Your task to perform on an android device: add a contact Image 0: 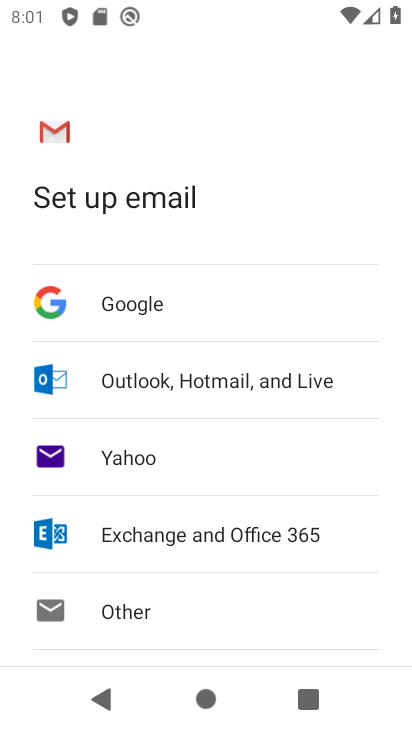
Step 0: press home button
Your task to perform on an android device: add a contact Image 1: 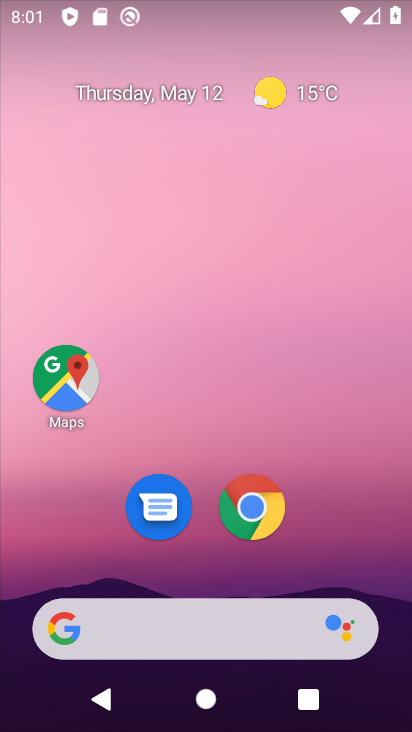
Step 1: drag from (232, 572) to (169, 52)
Your task to perform on an android device: add a contact Image 2: 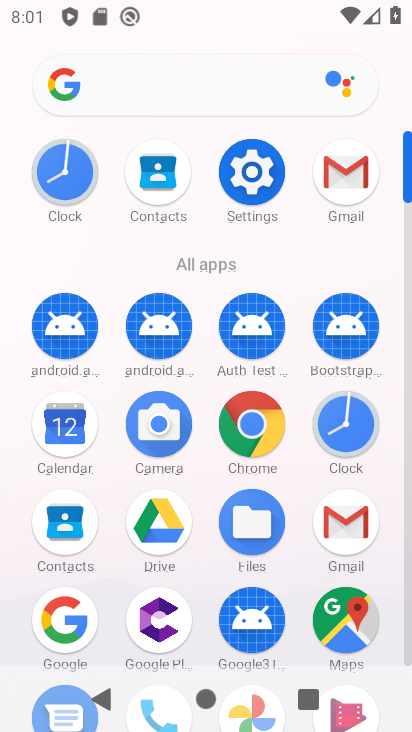
Step 2: click (43, 550)
Your task to perform on an android device: add a contact Image 3: 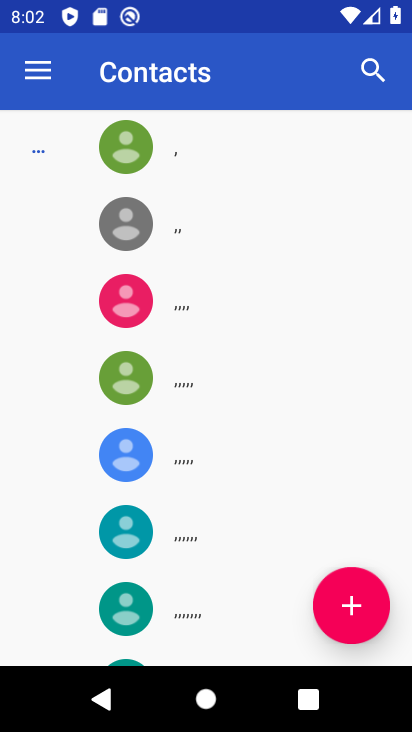
Step 3: click (333, 620)
Your task to perform on an android device: add a contact Image 4: 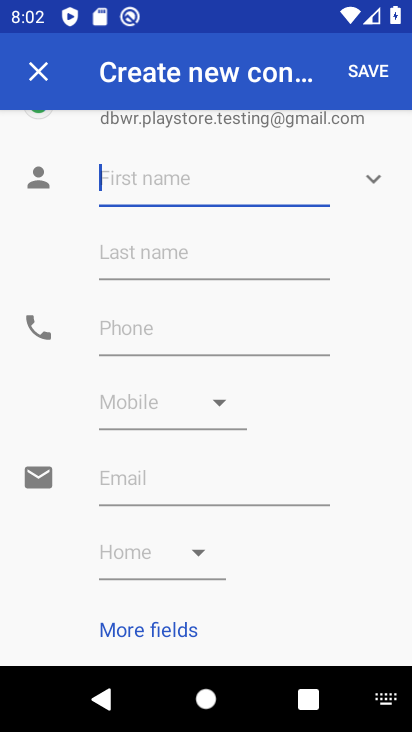
Step 4: type "zxcfdsaqwert"
Your task to perform on an android device: add a contact Image 5: 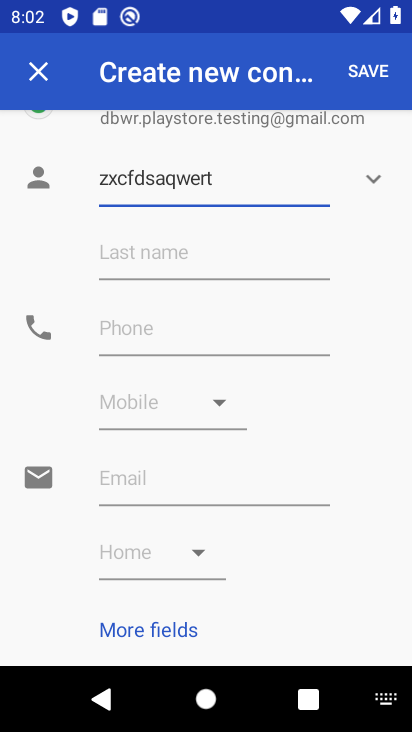
Step 5: click (135, 341)
Your task to perform on an android device: add a contact Image 6: 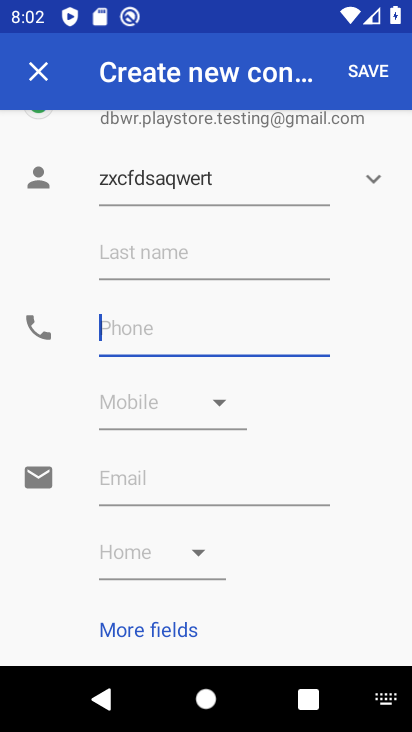
Step 6: type "2345678909"
Your task to perform on an android device: add a contact Image 7: 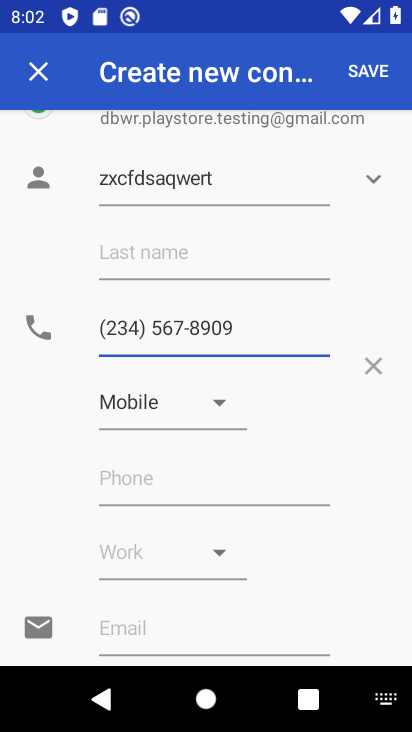
Step 7: click (372, 66)
Your task to perform on an android device: add a contact Image 8: 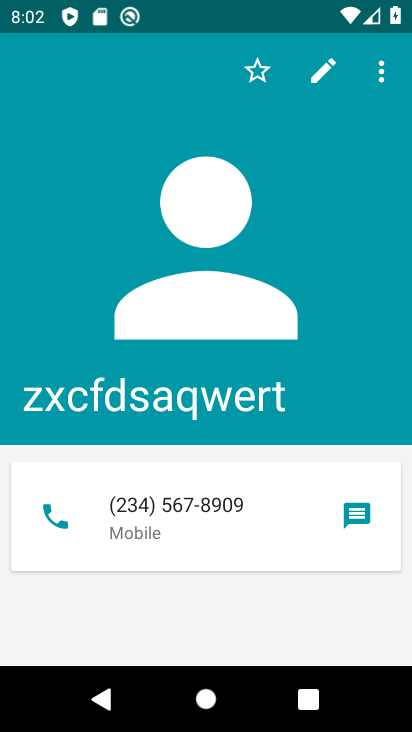
Step 8: task complete